Your task to perform on an android device: empty trash in the gmail app Image 0: 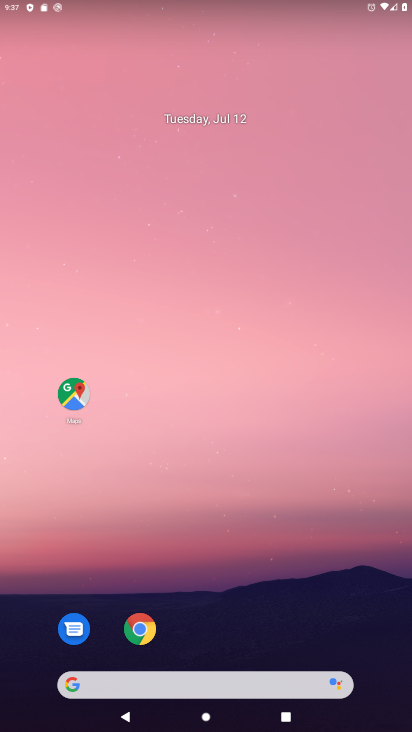
Step 0: drag from (285, 613) to (249, 186)
Your task to perform on an android device: empty trash in the gmail app Image 1: 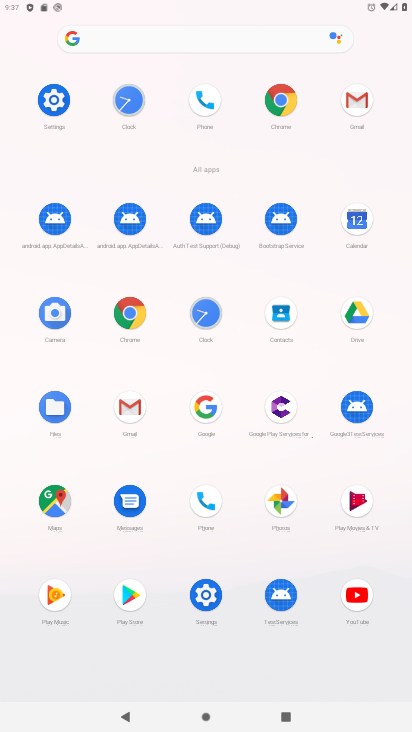
Step 1: click (127, 402)
Your task to perform on an android device: empty trash in the gmail app Image 2: 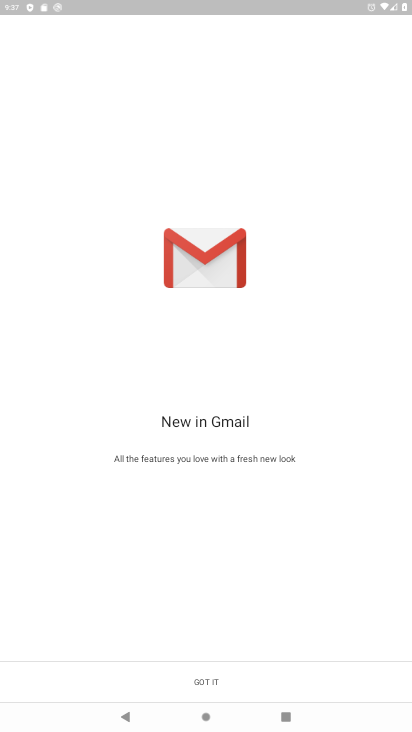
Step 2: click (203, 686)
Your task to perform on an android device: empty trash in the gmail app Image 3: 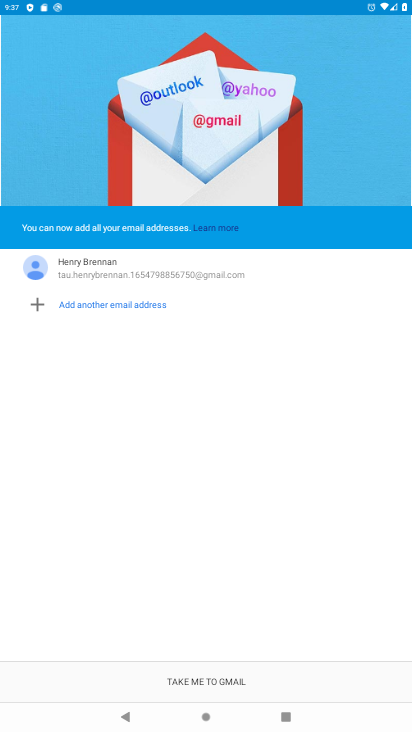
Step 3: click (203, 686)
Your task to perform on an android device: empty trash in the gmail app Image 4: 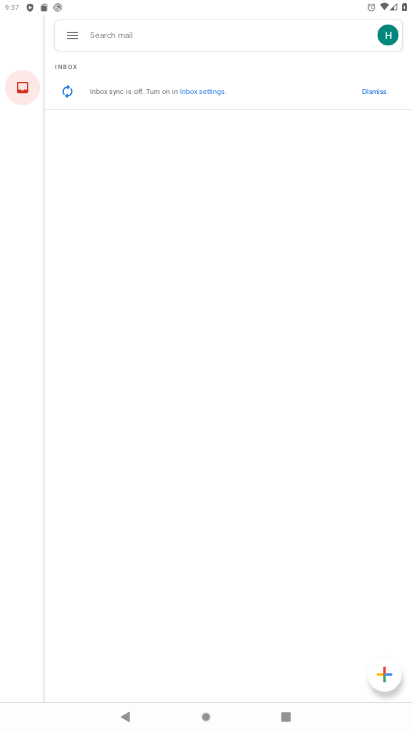
Step 4: click (75, 39)
Your task to perform on an android device: empty trash in the gmail app Image 5: 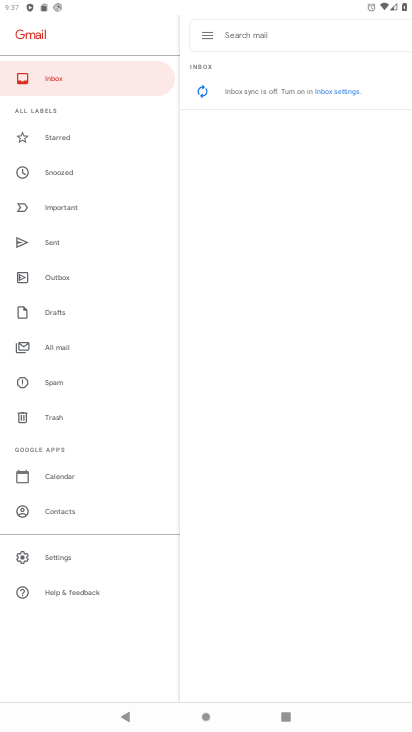
Step 5: click (47, 418)
Your task to perform on an android device: empty trash in the gmail app Image 6: 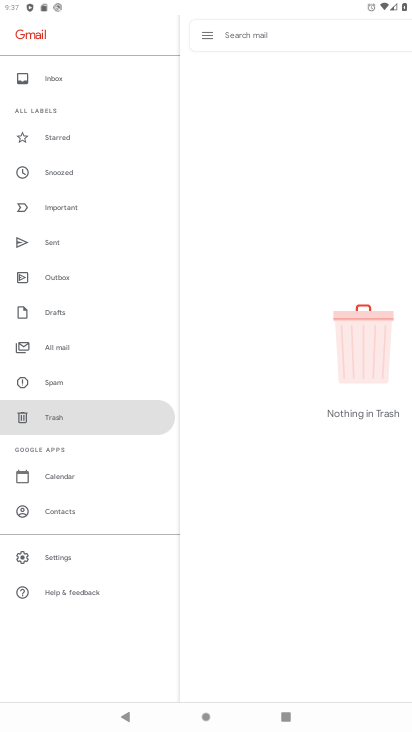
Step 6: task complete